Your task to perform on an android device: turn on javascript in the chrome app Image 0: 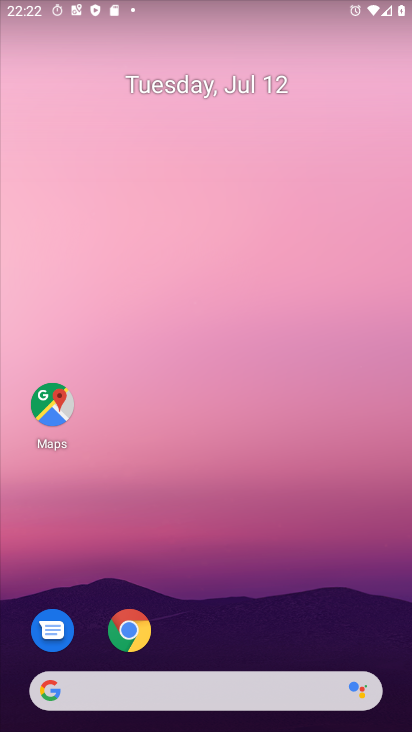
Step 0: click (116, 625)
Your task to perform on an android device: turn on javascript in the chrome app Image 1: 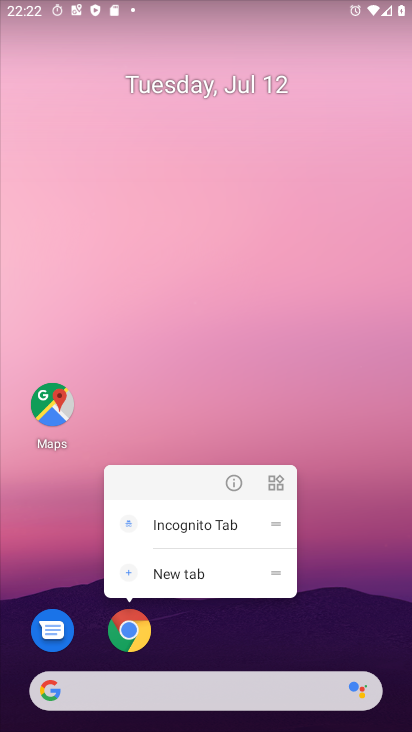
Step 1: click (134, 635)
Your task to perform on an android device: turn on javascript in the chrome app Image 2: 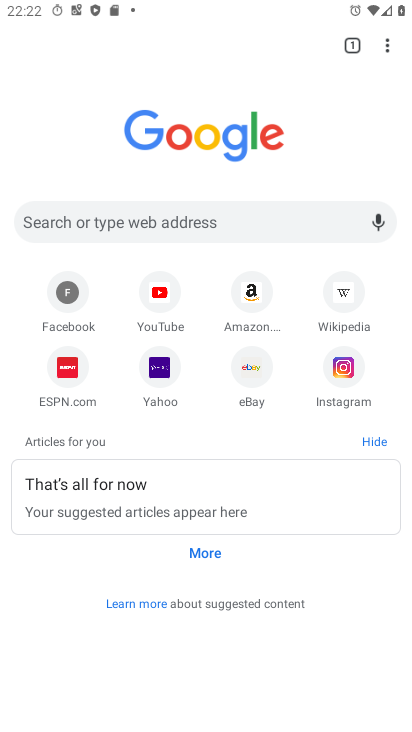
Step 2: drag from (383, 39) to (250, 374)
Your task to perform on an android device: turn on javascript in the chrome app Image 3: 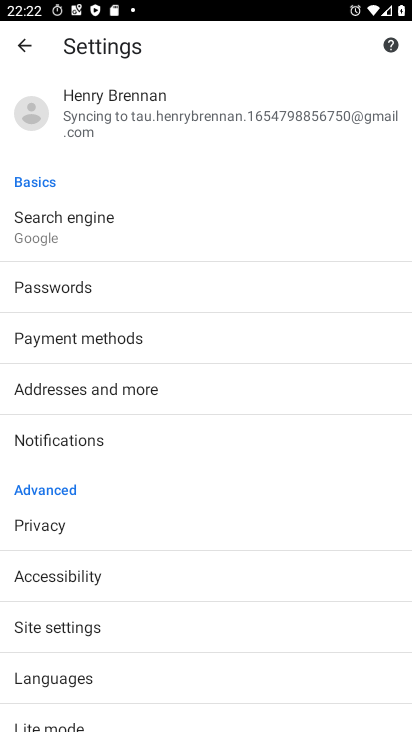
Step 3: click (102, 634)
Your task to perform on an android device: turn on javascript in the chrome app Image 4: 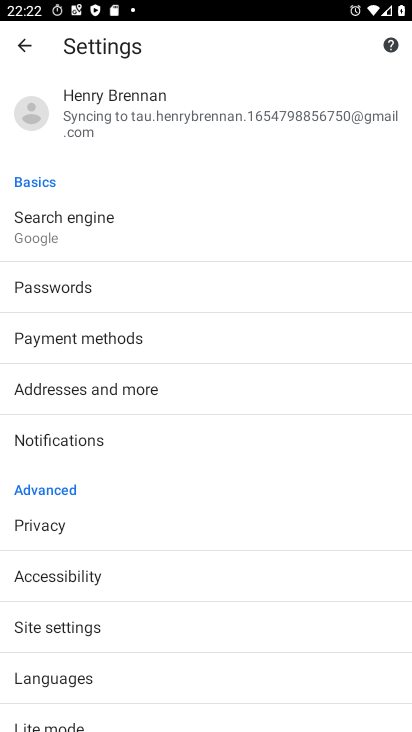
Step 4: click (88, 631)
Your task to perform on an android device: turn on javascript in the chrome app Image 5: 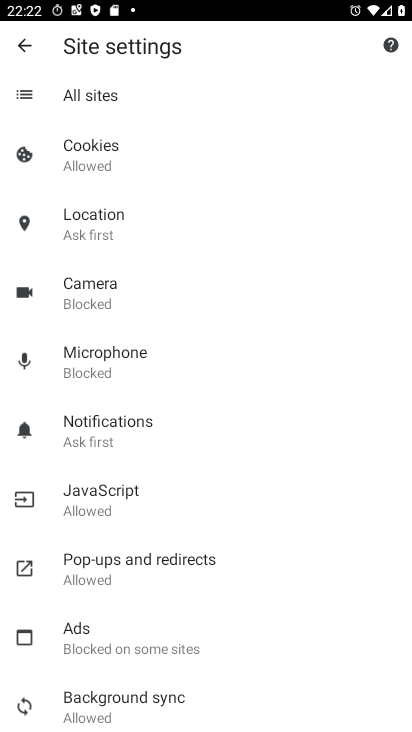
Step 5: click (126, 488)
Your task to perform on an android device: turn on javascript in the chrome app Image 6: 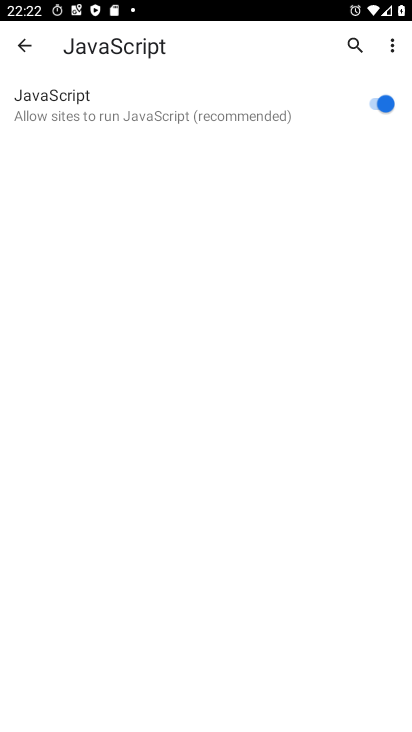
Step 6: task complete